Your task to perform on an android device: turn on notifications settings in the gmail app Image 0: 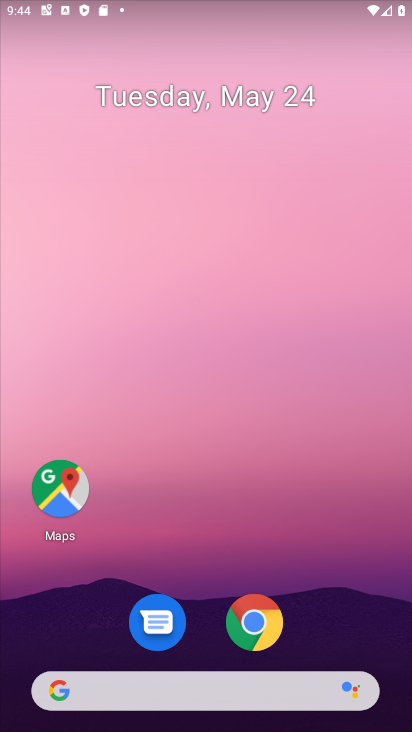
Step 0: drag from (240, 701) to (332, 229)
Your task to perform on an android device: turn on notifications settings in the gmail app Image 1: 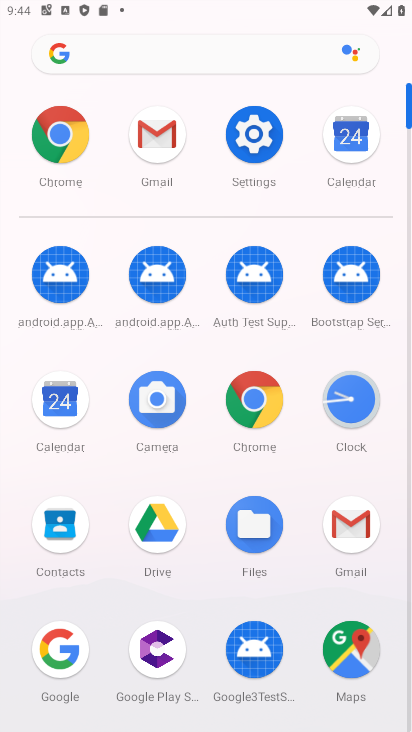
Step 1: click (159, 157)
Your task to perform on an android device: turn on notifications settings in the gmail app Image 2: 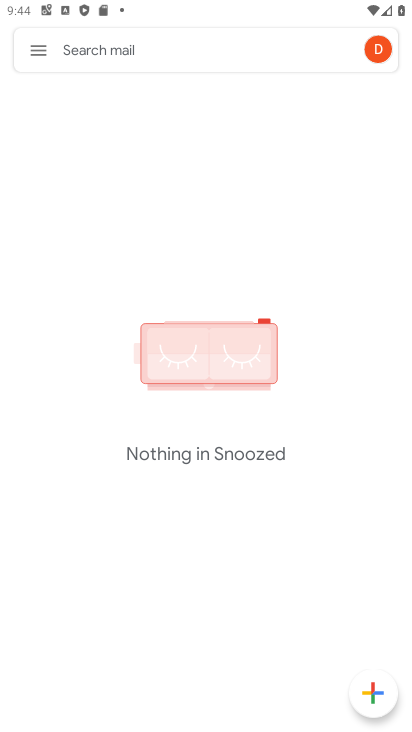
Step 2: click (40, 50)
Your task to perform on an android device: turn on notifications settings in the gmail app Image 3: 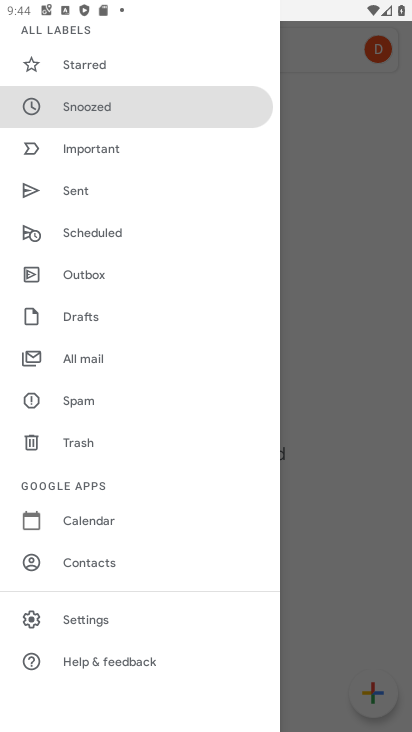
Step 3: click (80, 613)
Your task to perform on an android device: turn on notifications settings in the gmail app Image 4: 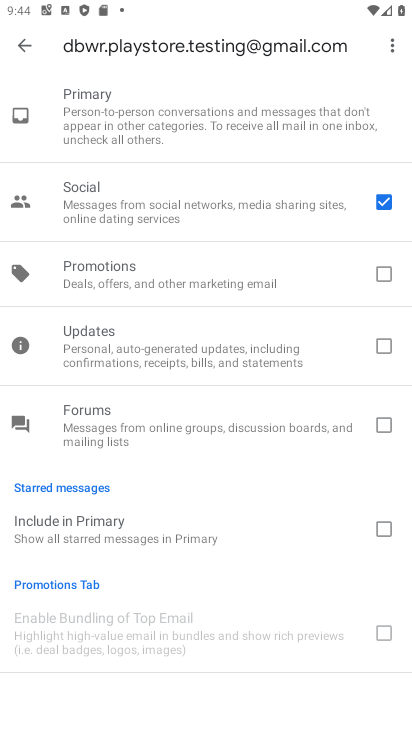
Step 4: click (15, 46)
Your task to perform on an android device: turn on notifications settings in the gmail app Image 5: 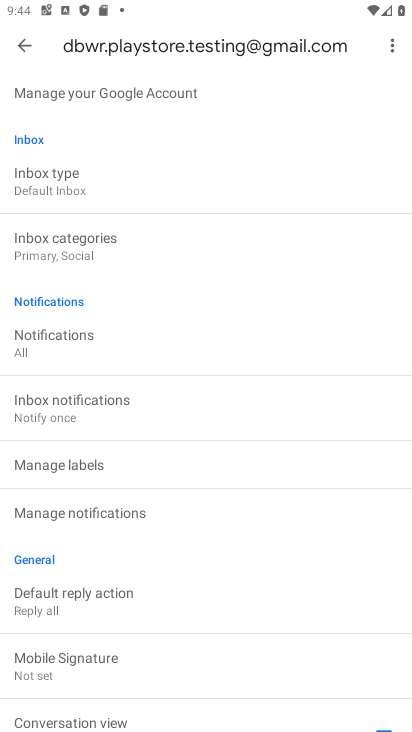
Step 5: click (60, 334)
Your task to perform on an android device: turn on notifications settings in the gmail app Image 6: 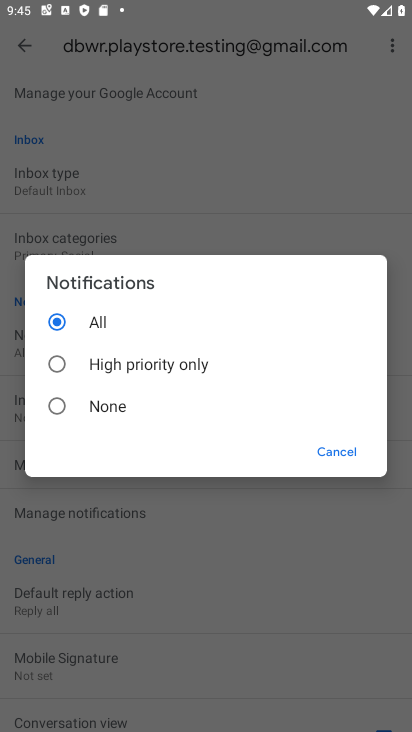
Step 6: task complete